Your task to perform on an android device: Open settings Image 0: 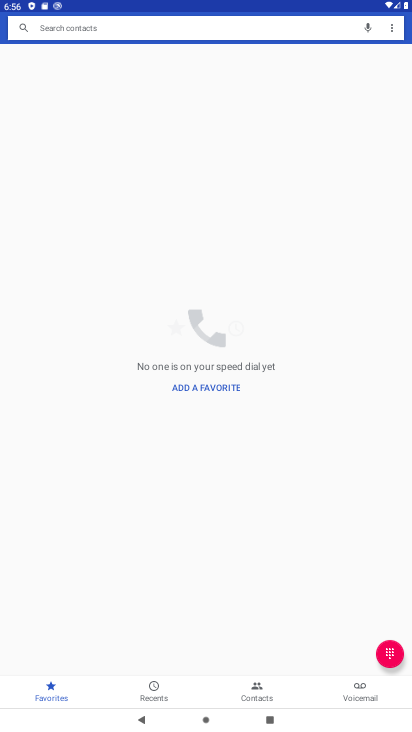
Step 0: press home button
Your task to perform on an android device: Open settings Image 1: 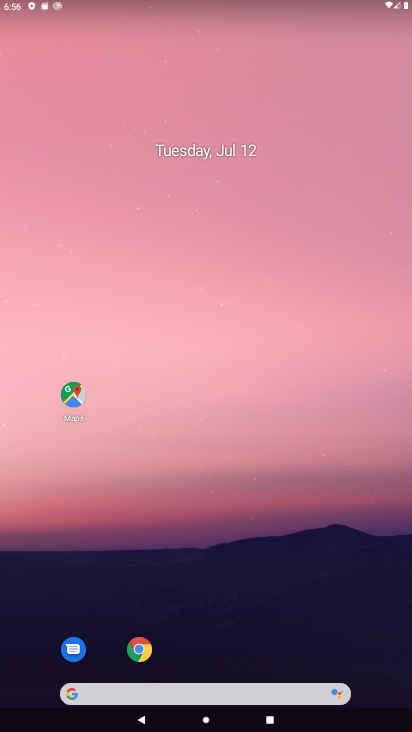
Step 1: drag from (206, 700) to (205, 211)
Your task to perform on an android device: Open settings Image 2: 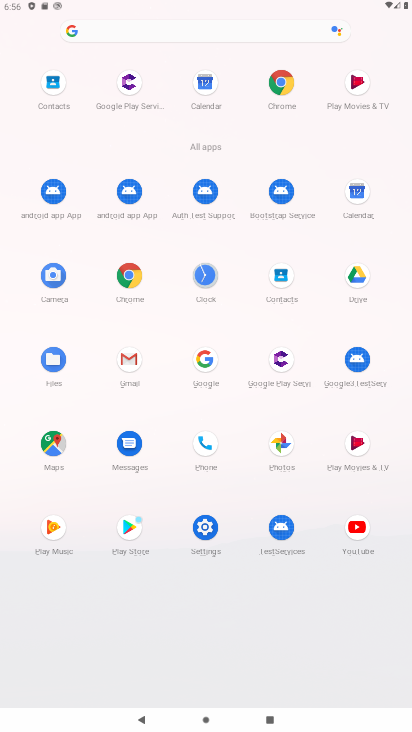
Step 2: click (206, 525)
Your task to perform on an android device: Open settings Image 3: 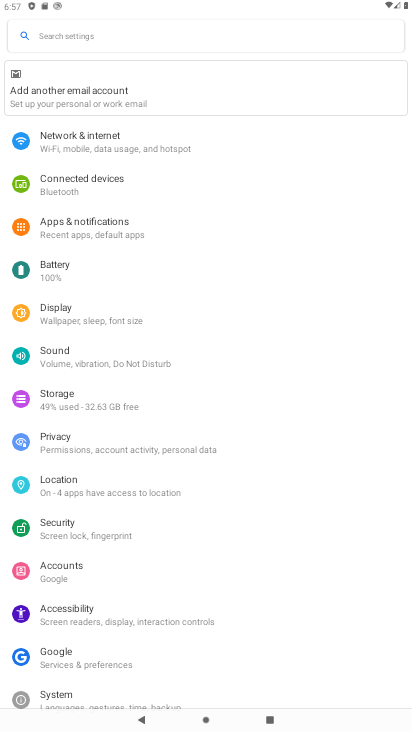
Step 3: task complete